Your task to perform on an android device: Check the news Image 0: 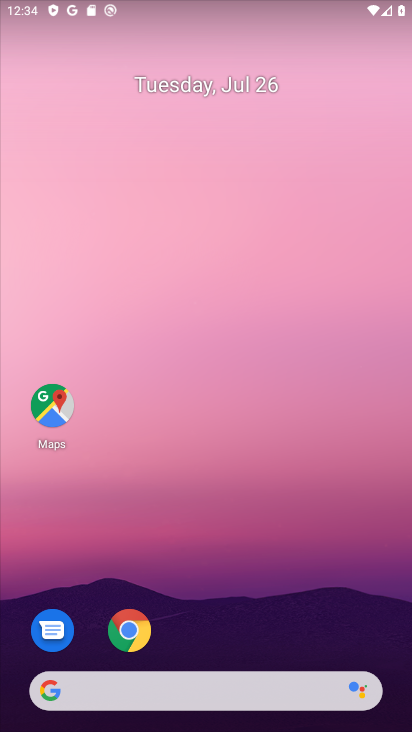
Step 0: drag from (226, 546) to (98, 10)
Your task to perform on an android device: Check the news Image 1: 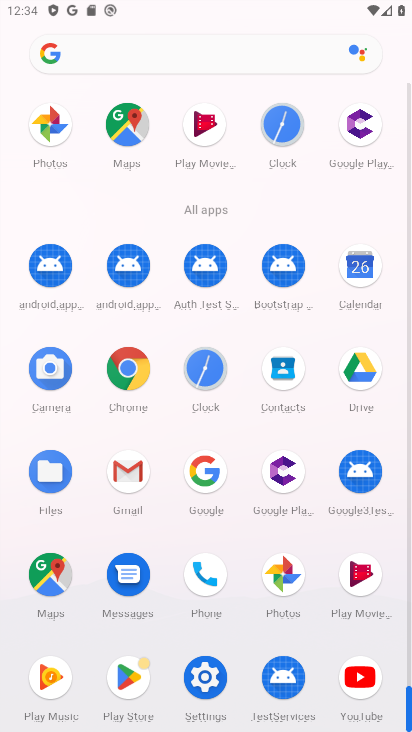
Step 1: click (128, 365)
Your task to perform on an android device: Check the news Image 2: 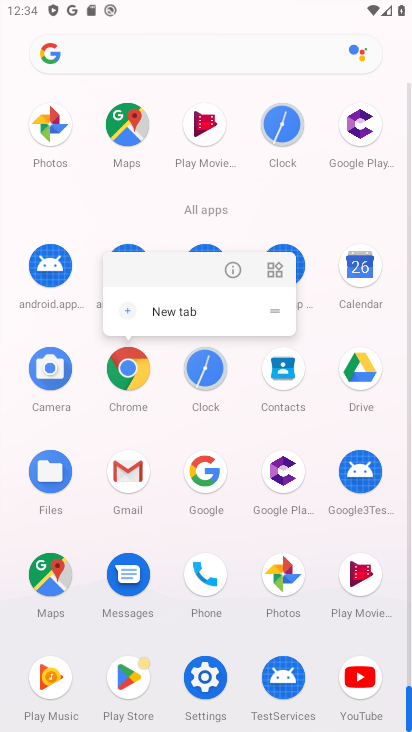
Step 2: click (137, 376)
Your task to perform on an android device: Check the news Image 3: 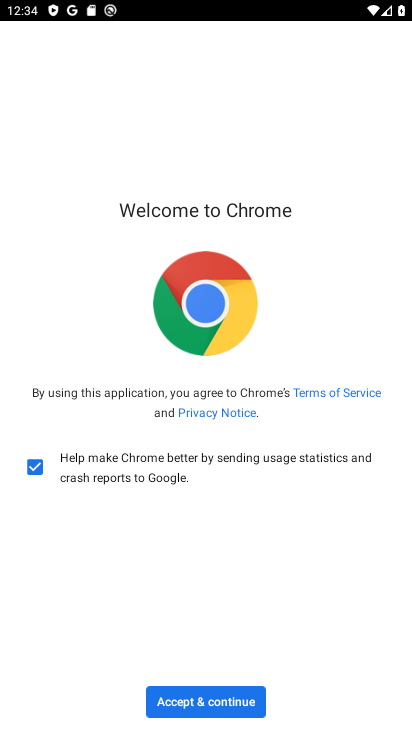
Step 3: click (185, 701)
Your task to perform on an android device: Check the news Image 4: 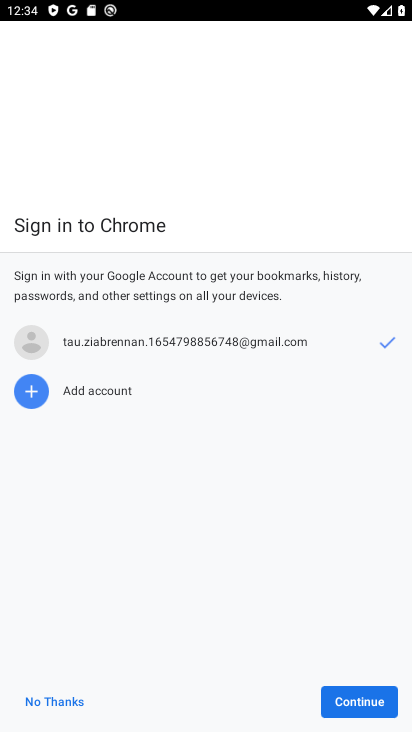
Step 4: click (39, 712)
Your task to perform on an android device: Check the news Image 5: 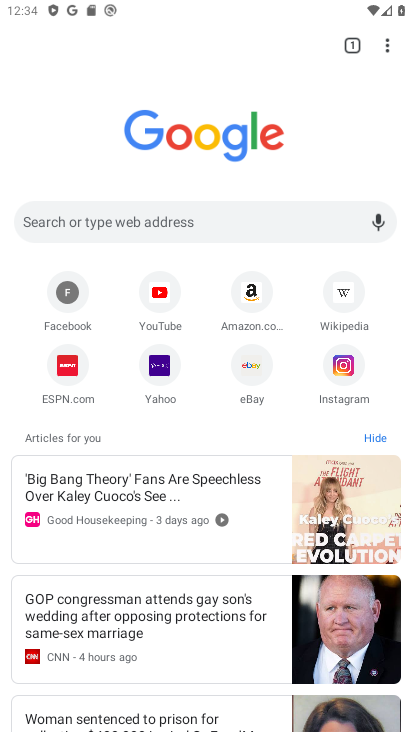
Step 5: task complete